Your task to perform on an android device: Open Google Chrome Image 0: 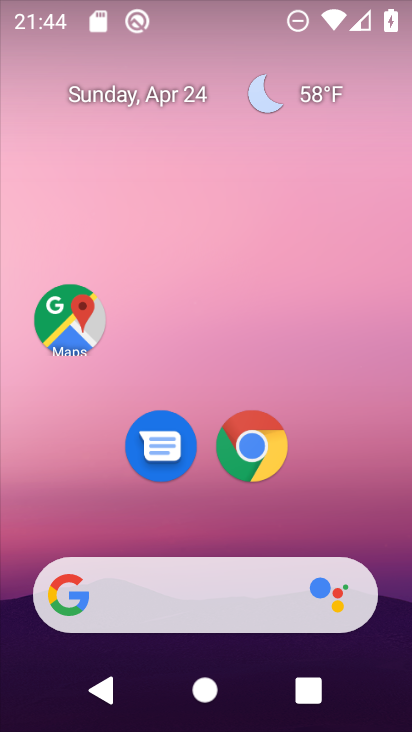
Step 0: drag from (165, 607) to (289, 63)
Your task to perform on an android device: Open Google Chrome Image 1: 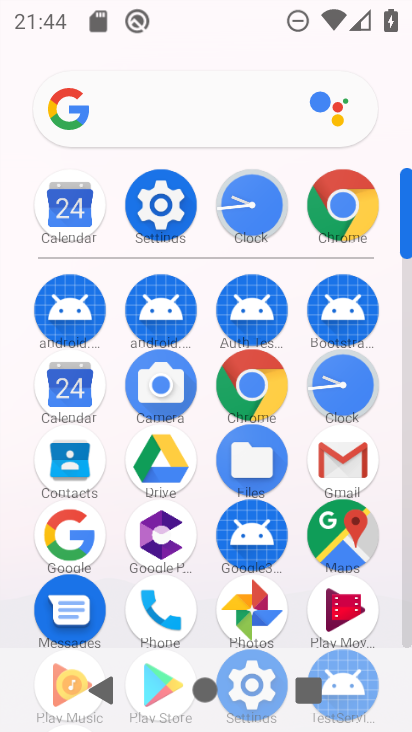
Step 1: click (348, 214)
Your task to perform on an android device: Open Google Chrome Image 2: 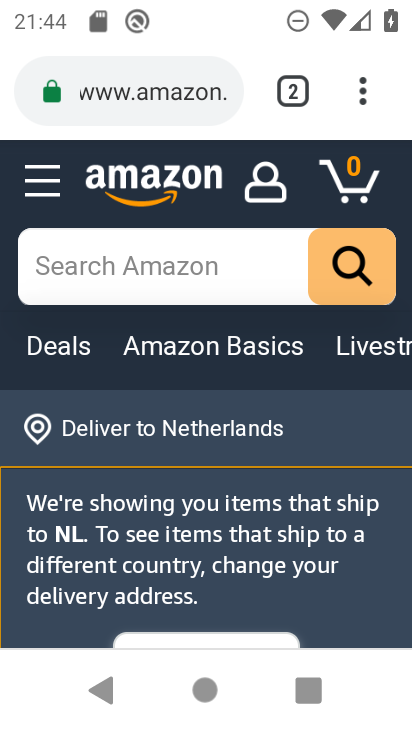
Step 2: drag from (362, 98) to (112, 179)
Your task to perform on an android device: Open Google Chrome Image 3: 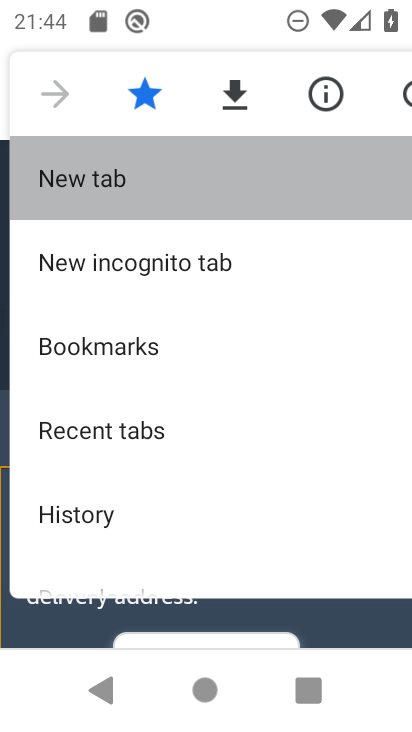
Step 3: click (108, 176)
Your task to perform on an android device: Open Google Chrome Image 4: 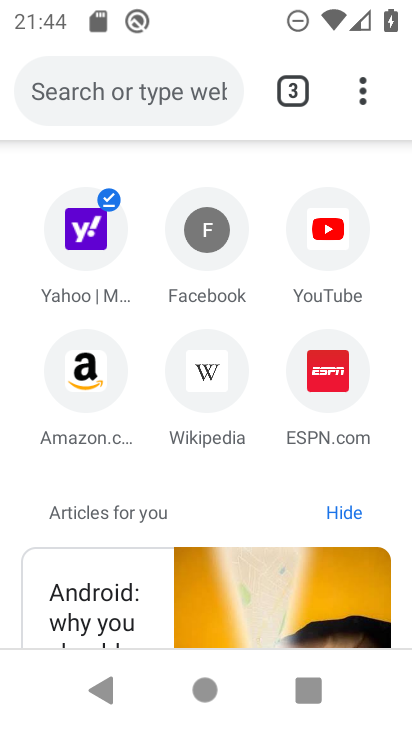
Step 4: task complete